Your task to perform on an android device: turn off translation in the chrome app Image 0: 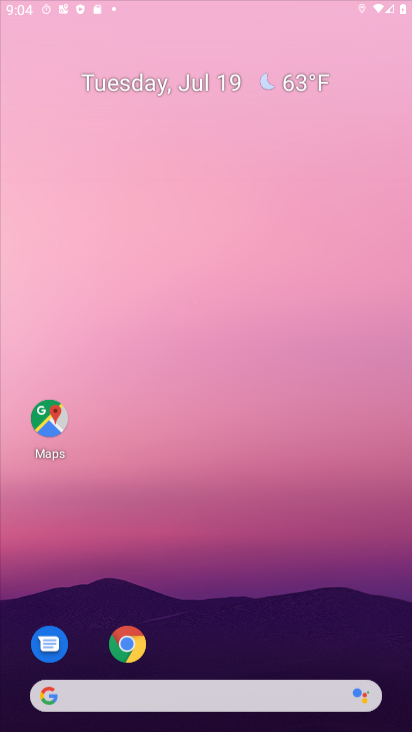
Step 0: press back button
Your task to perform on an android device: turn off translation in the chrome app Image 1: 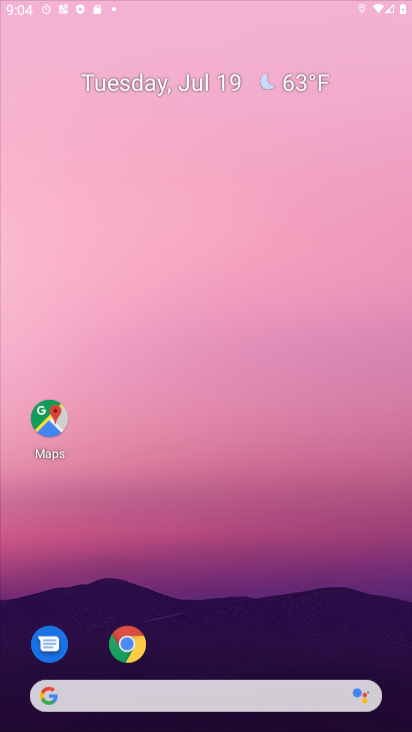
Step 1: click (133, 71)
Your task to perform on an android device: turn off translation in the chrome app Image 2: 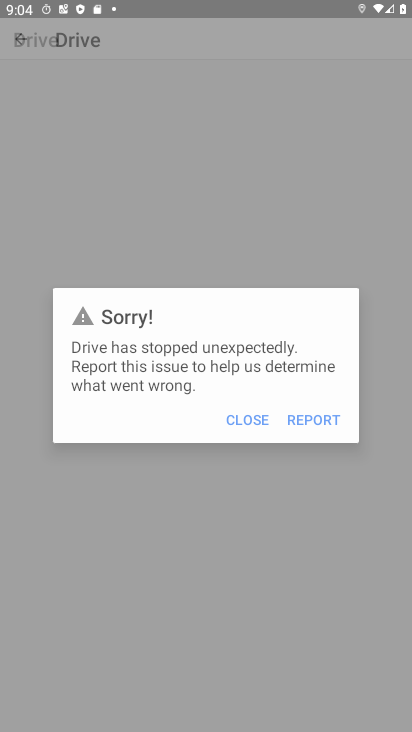
Step 2: press home button
Your task to perform on an android device: turn off translation in the chrome app Image 3: 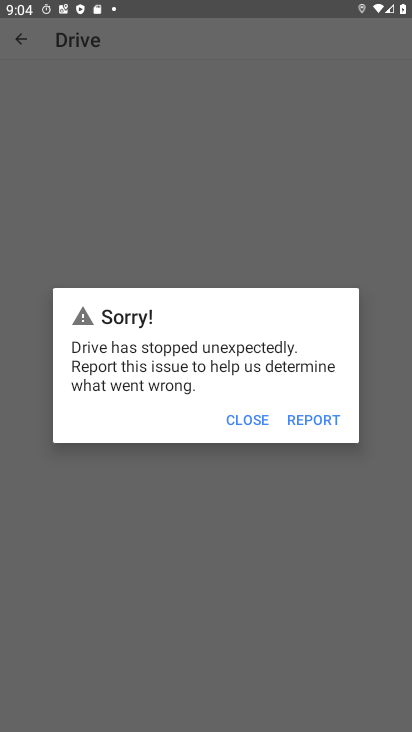
Step 3: drag from (204, 20) to (98, 239)
Your task to perform on an android device: turn off translation in the chrome app Image 4: 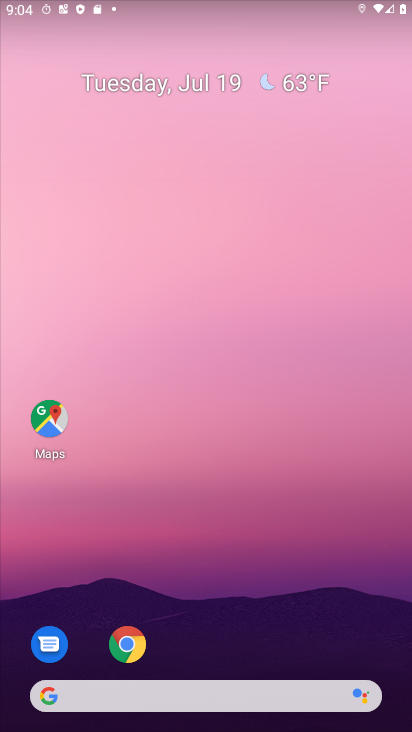
Step 4: drag from (241, 629) to (199, 200)
Your task to perform on an android device: turn off translation in the chrome app Image 5: 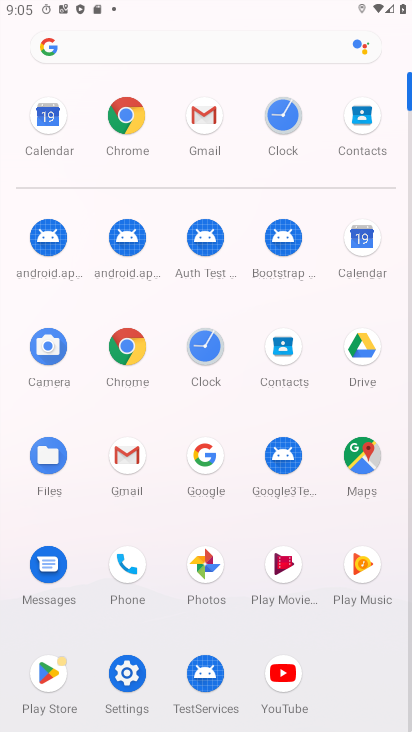
Step 5: click (123, 359)
Your task to perform on an android device: turn off translation in the chrome app Image 6: 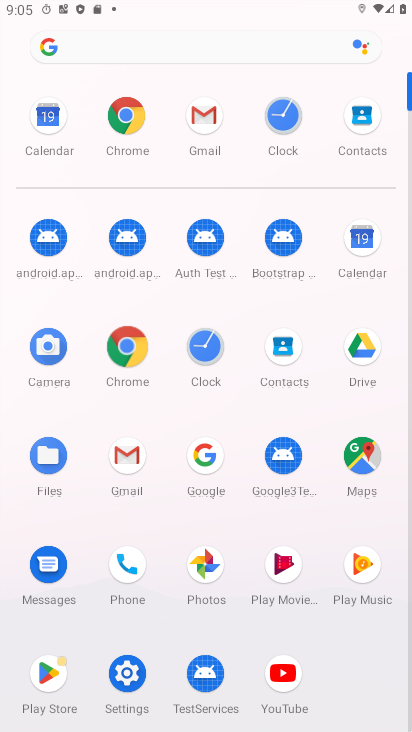
Step 6: click (126, 354)
Your task to perform on an android device: turn off translation in the chrome app Image 7: 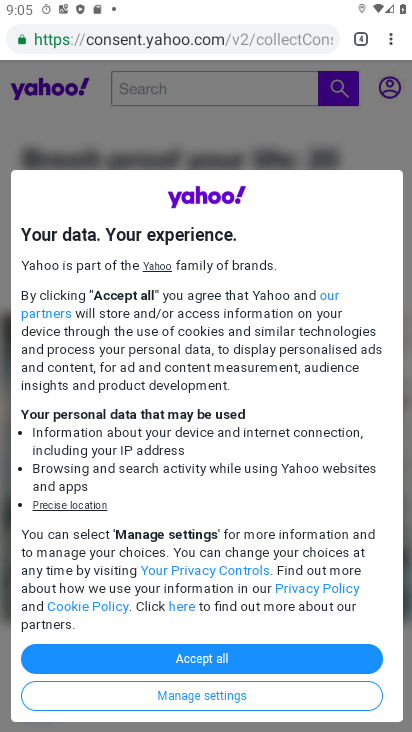
Step 7: drag from (391, 41) to (253, 465)
Your task to perform on an android device: turn off translation in the chrome app Image 8: 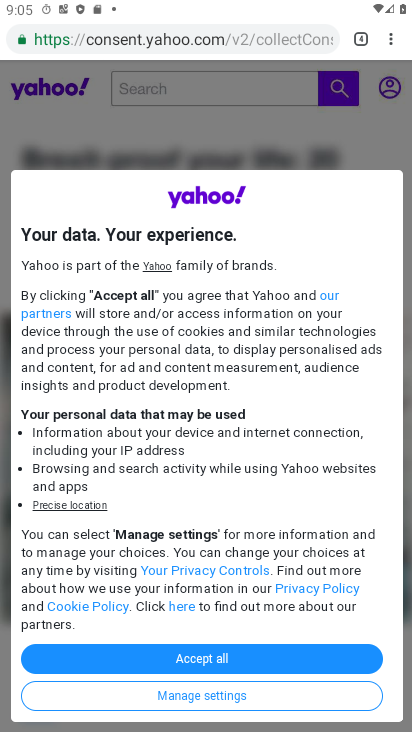
Step 8: click (249, 473)
Your task to perform on an android device: turn off translation in the chrome app Image 9: 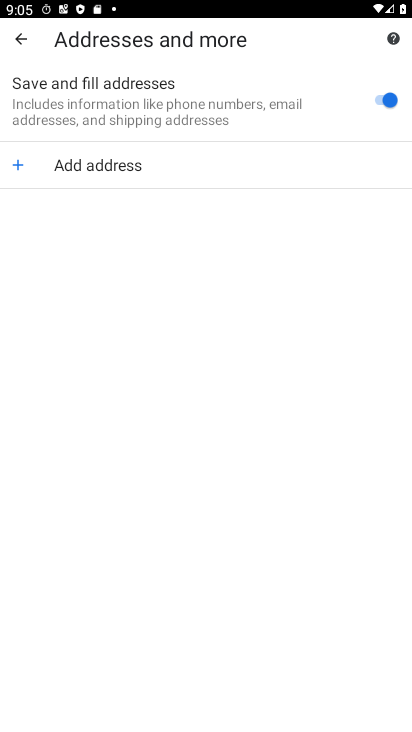
Step 9: click (22, 33)
Your task to perform on an android device: turn off translation in the chrome app Image 10: 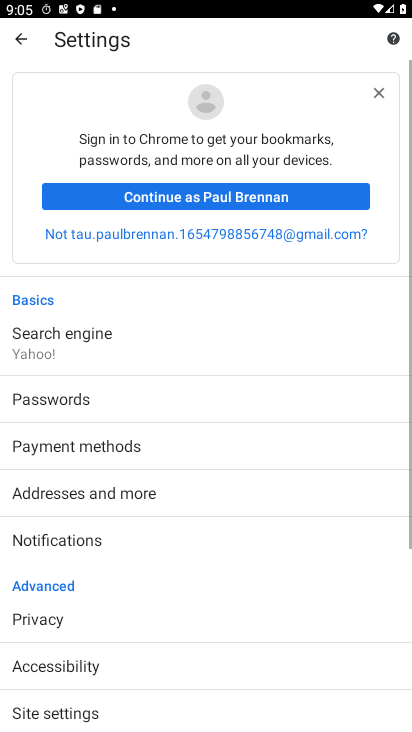
Step 10: drag from (154, 595) to (157, 219)
Your task to perform on an android device: turn off translation in the chrome app Image 11: 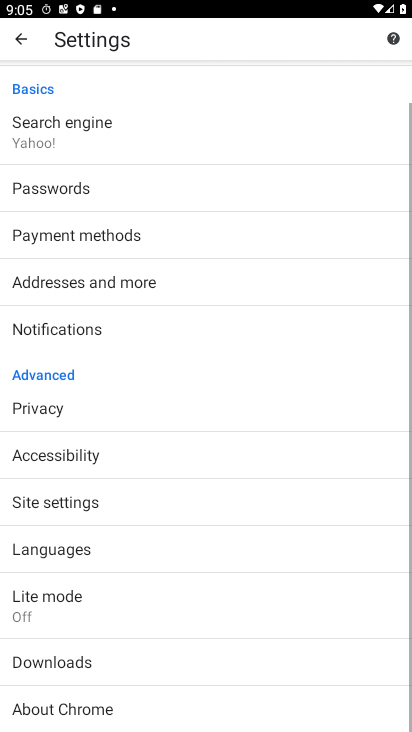
Step 11: drag from (127, 599) to (101, 293)
Your task to perform on an android device: turn off translation in the chrome app Image 12: 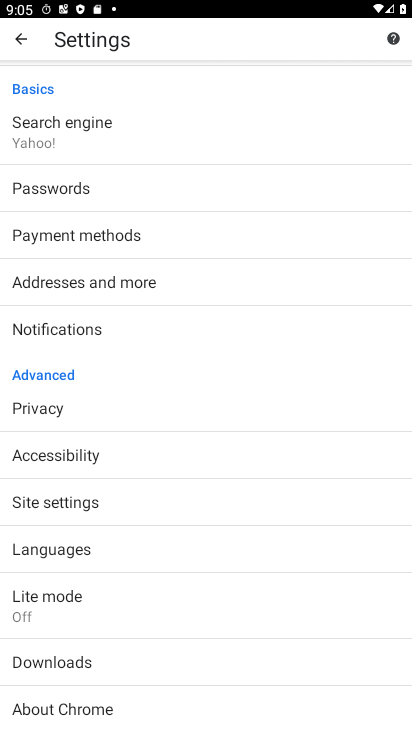
Step 12: click (98, 544)
Your task to perform on an android device: turn off translation in the chrome app Image 13: 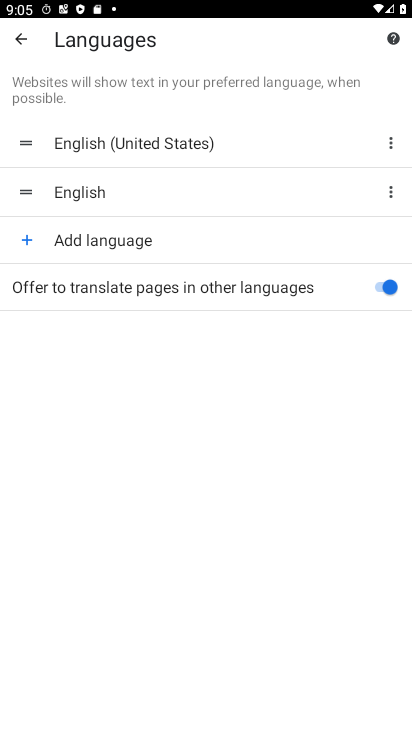
Step 13: click (384, 287)
Your task to perform on an android device: turn off translation in the chrome app Image 14: 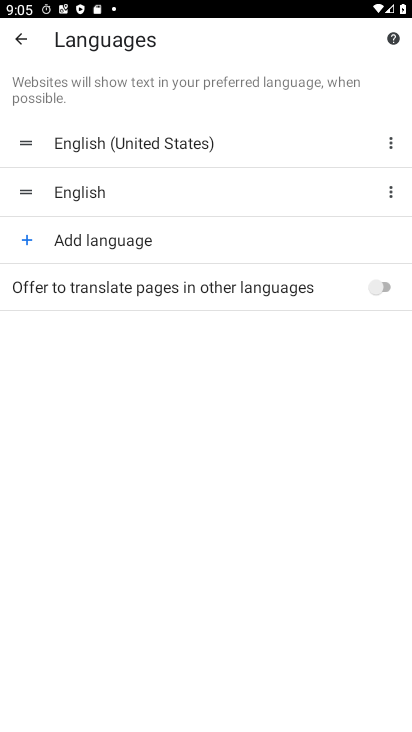
Step 14: task complete